Your task to perform on an android device: Open display settings Image 0: 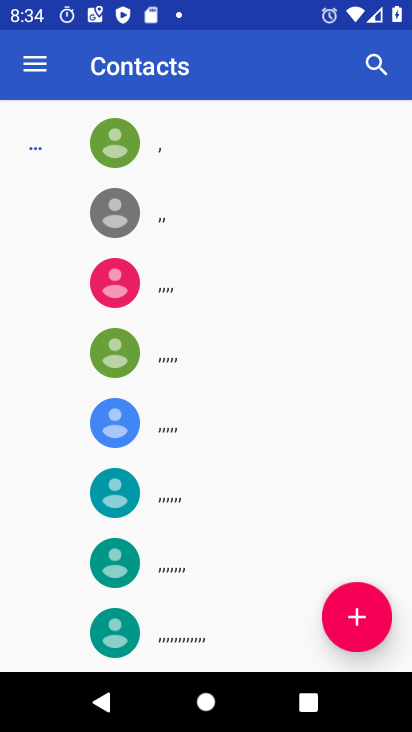
Step 0: press home button
Your task to perform on an android device: Open display settings Image 1: 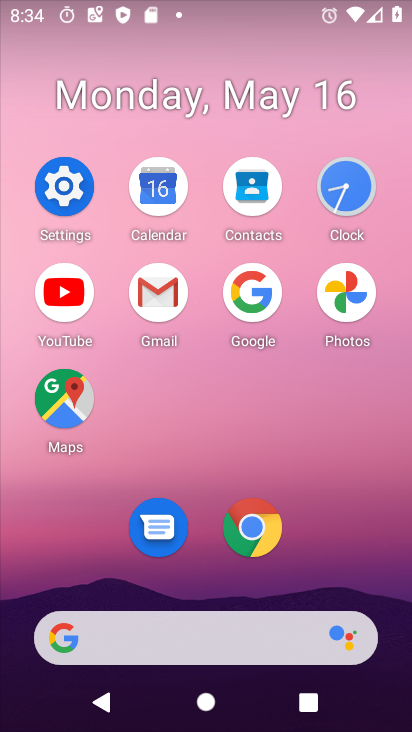
Step 1: click (51, 185)
Your task to perform on an android device: Open display settings Image 2: 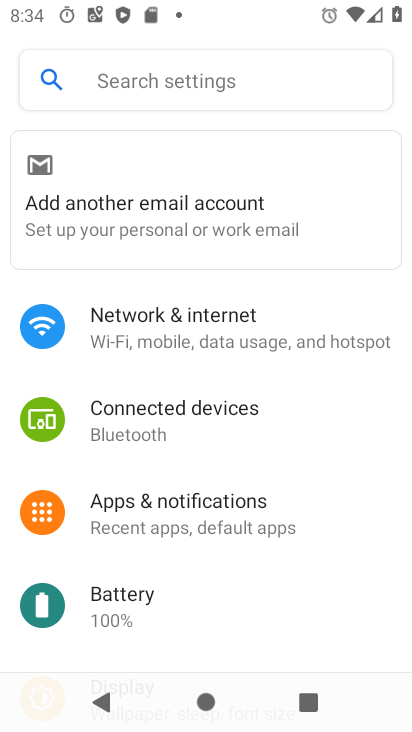
Step 2: drag from (208, 576) to (282, 187)
Your task to perform on an android device: Open display settings Image 3: 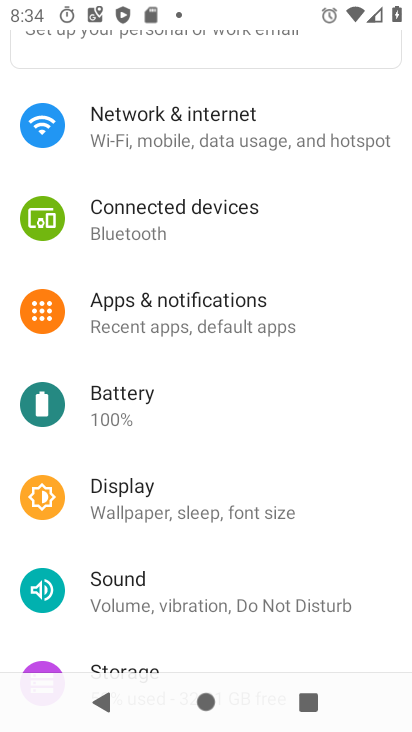
Step 3: click (224, 492)
Your task to perform on an android device: Open display settings Image 4: 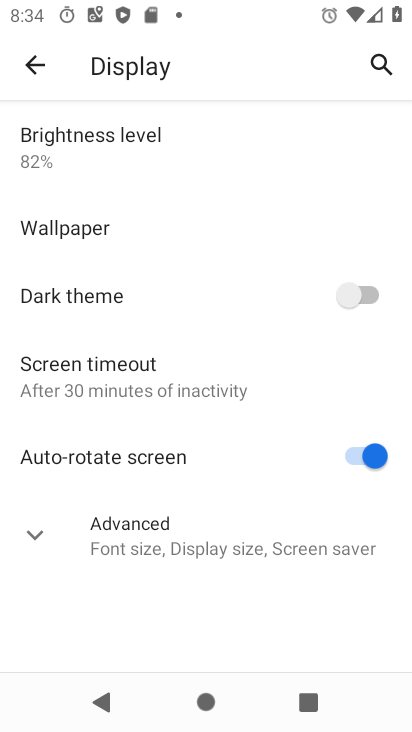
Step 4: task complete